Your task to perform on an android device: Open battery settings Image 0: 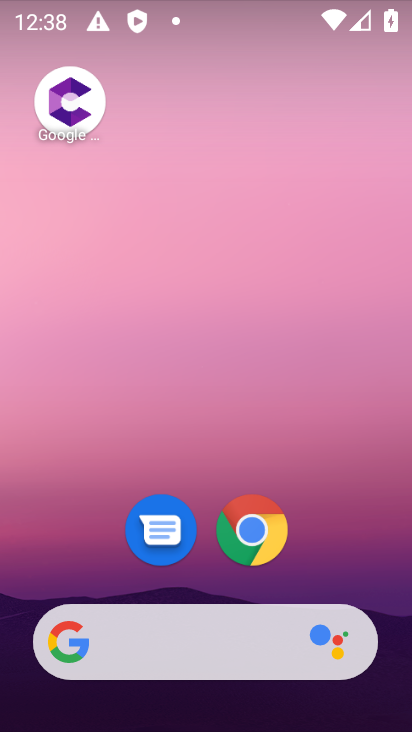
Step 0: drag from (212, 583) to (209, 64)
Your task to perform on an android device: Open battery settings Image 1: 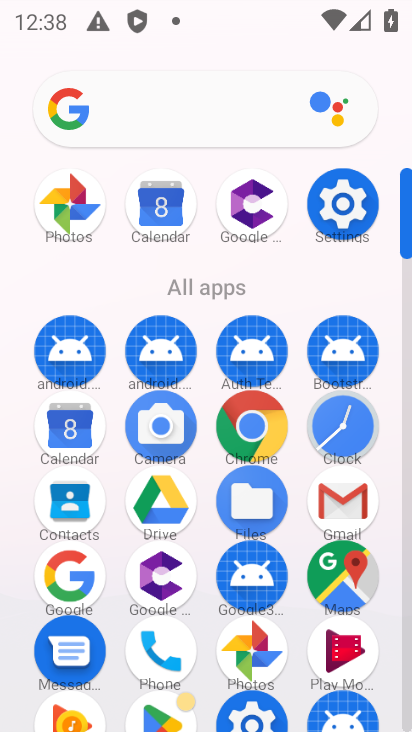
Step 1: click (348, 204)
Your task to perform on an android device: Open battery settings Image 2: 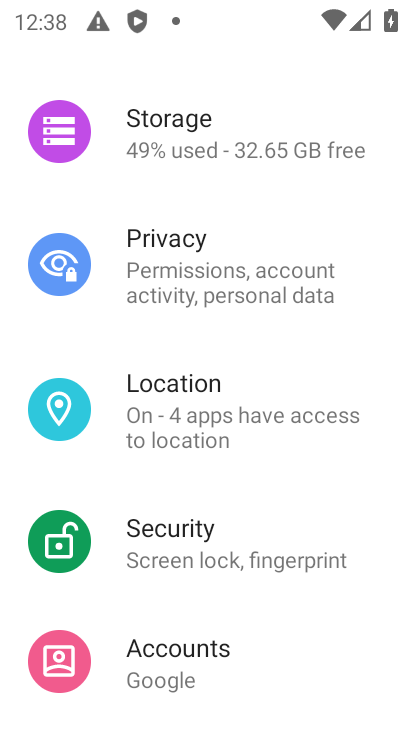
Step 2: drag from (151, 650) to (162, 294)
Your task to perform on an android device: Open battery settings Image 3: 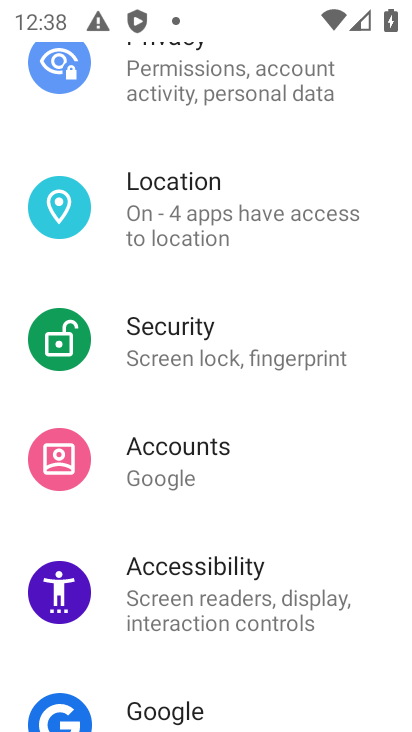
Step 3: drag from (209, 673) to (209, 465)
Your task to perform on an android device: Open battery settings Image 4: 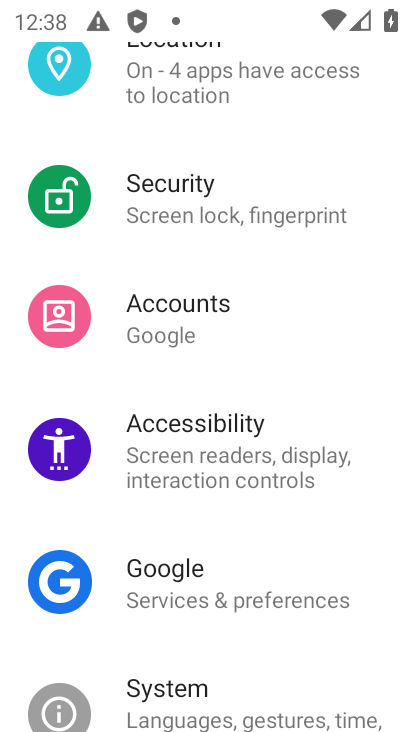
Step 4: drag from (190, 665) to (190, 438)
Your task to perform on an android device: Open battery settings Image 5: 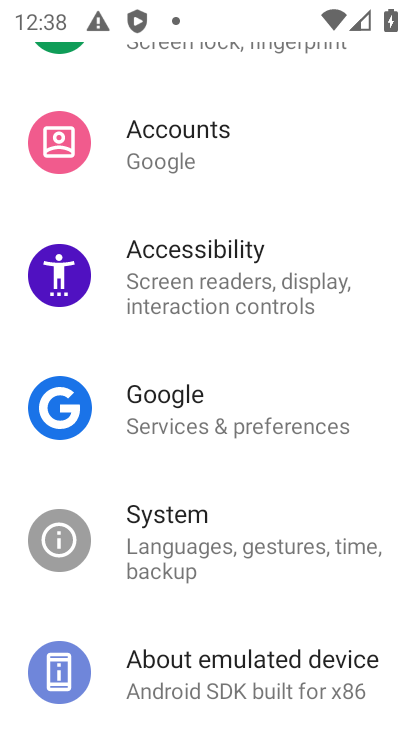
Step 5: drag from (184, 677) to (178, 378)
Your task to perform on an android device: Open battery settings Image 6: 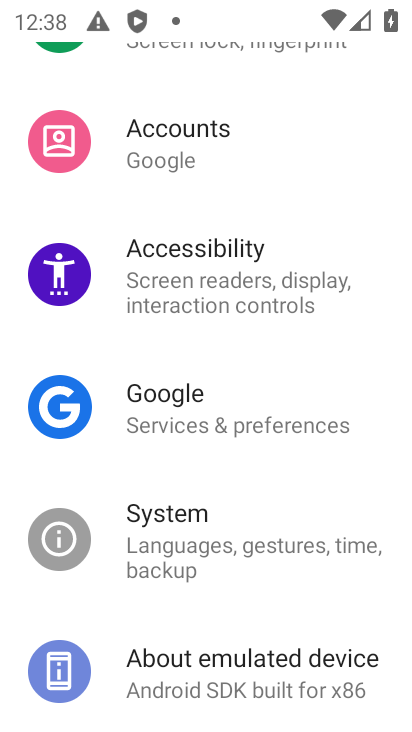
Step 6: drag from (203, 240) to (215, 524)
Your task to perform on an android device: Open battery settings Image 7: 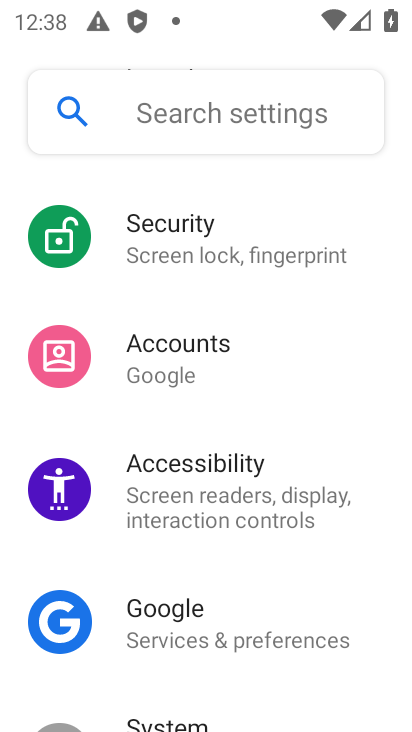
Step 7: drag from (204, 264) to (195, 574)
Your task to perform on an android device: Open battery settings Image 8: 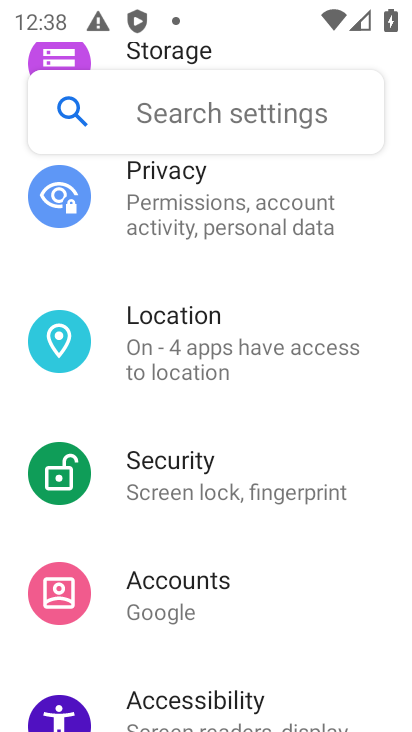
Step 8: drag from (186, 263) to (187, 559)
Your task to perform on an android device: Open battery settings Image 9: 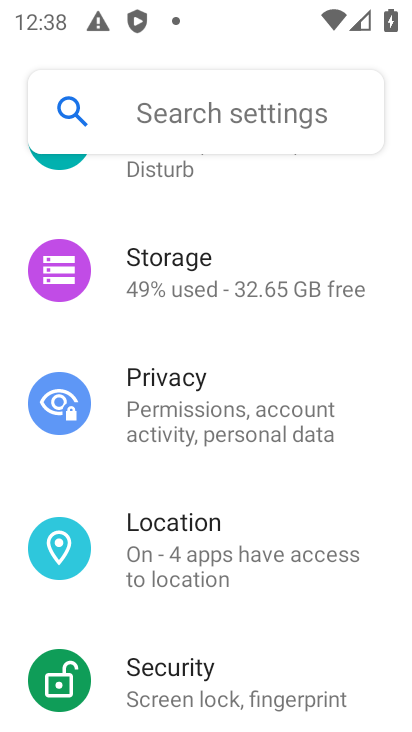
Step 9: drag from (179, 251) to (172, 509)
Your task to perform on an android device: Open battery settings Image 10: 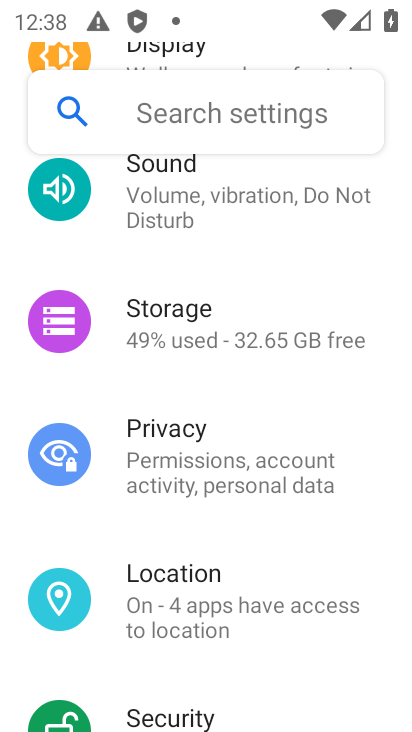
Step 10: drag from (185, 185) to (166, 589)
Your task to perform on an android device: Open battery settings Image 11: 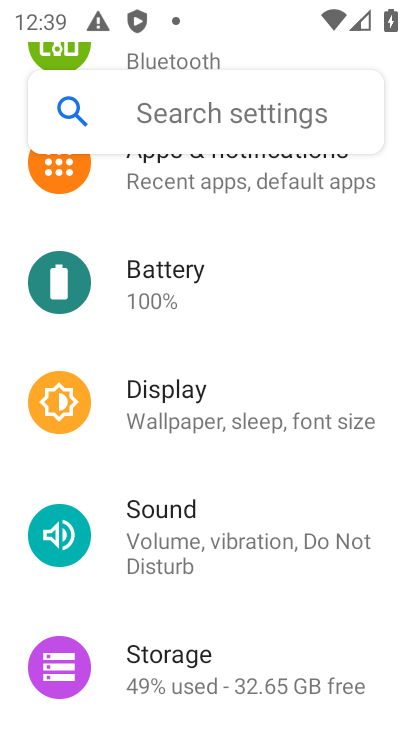
Step 11: drag from (169, 179) to (183, 579)
Your task to perform on an android device: Open battery settings Image 12: 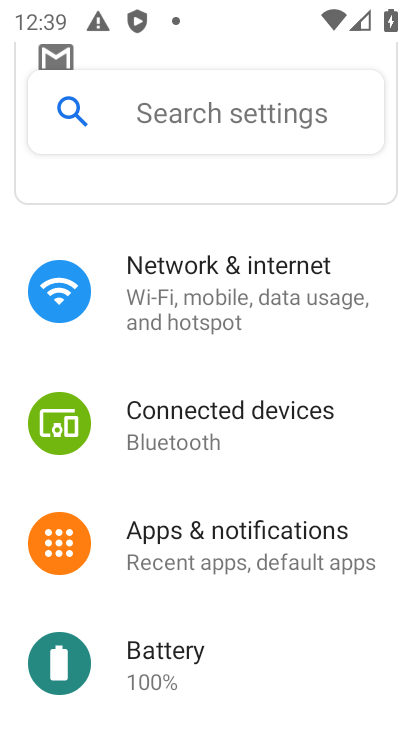
Step 12: drag from (171, 543) to (171, 354)
Your task to perform on an android device: Open battery settings Image 13: 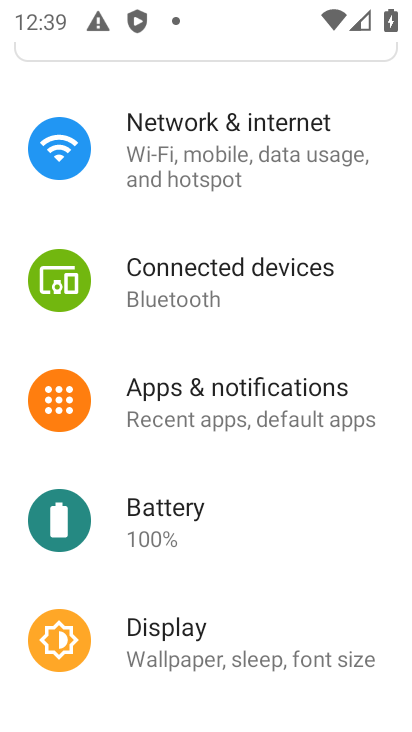
Step 13: click (164, 642)
Your task to perform on an android device: Open battery settings Image 14: 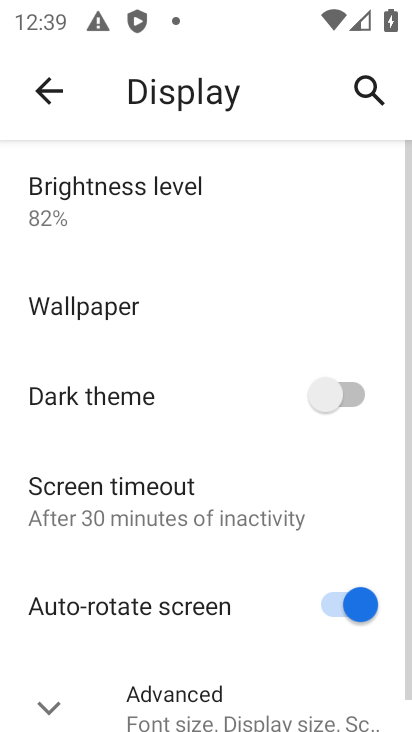
Step 14: drag from (168, 597) to (165, 346)
Your task to perform on an android device: Open battery settings Image 15: 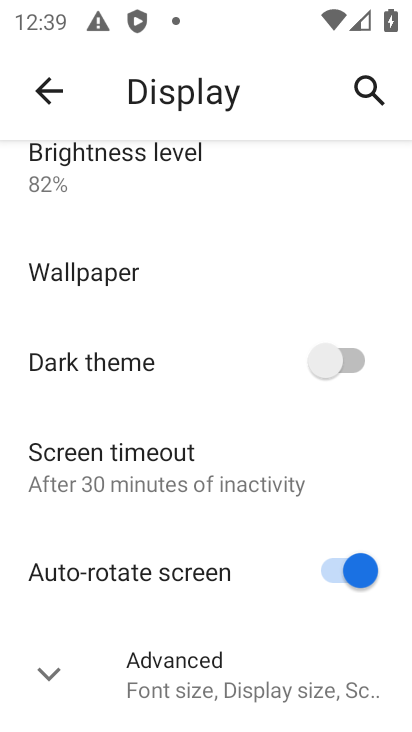
Step 15: click (162, 683)
Your task to perform on an android device: Open battery settings Image 16: 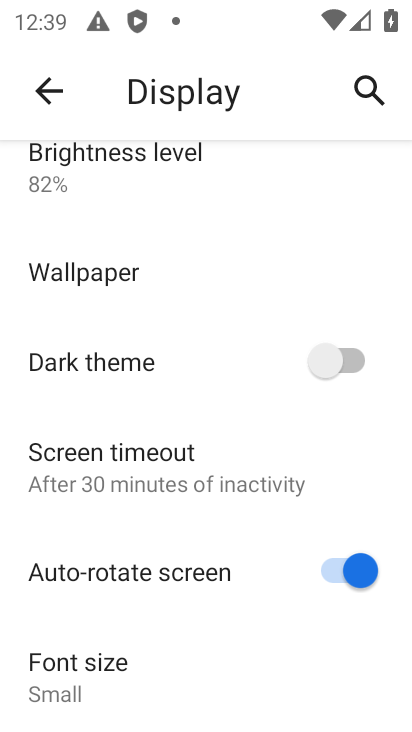
Step 16: drag from (139, 690) to (149, 334)
Your task to perform on an android device: Open battery settings Image 17: 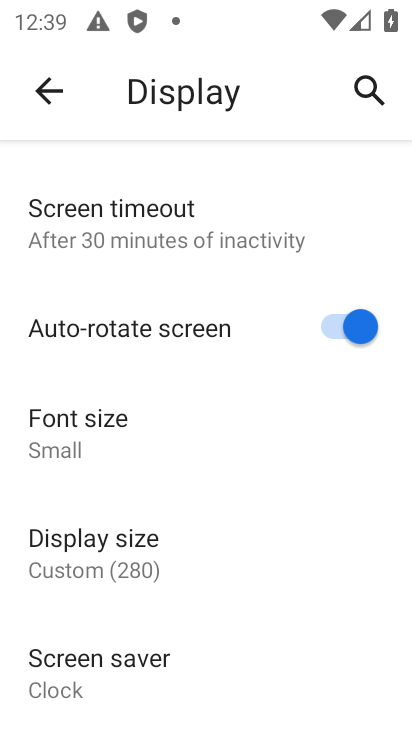
Step 17: click (51, 432)
Your task to perform on an android device: Open battery settings Image 18: 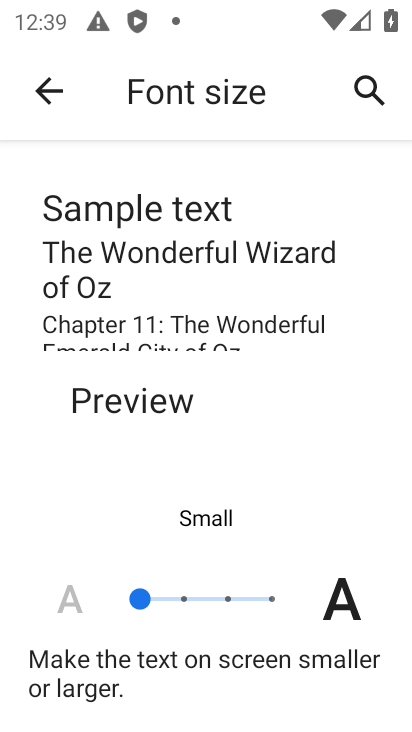
Step 18: click (49, 84)
Your task to perform on an android device: Open battery settings Image 19: 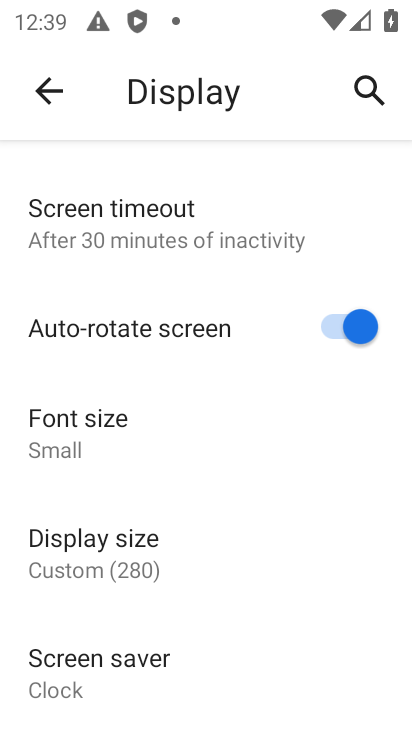
Step 19: click (44, 83)
Your task to perform on an android device: Open battery settings Image 20: 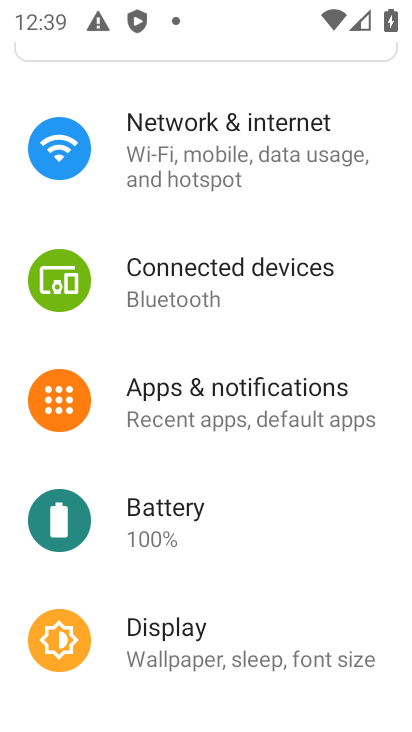
Step 20: click (169, 514)
Your task to perform on an android device: Open battery settings Image 21: 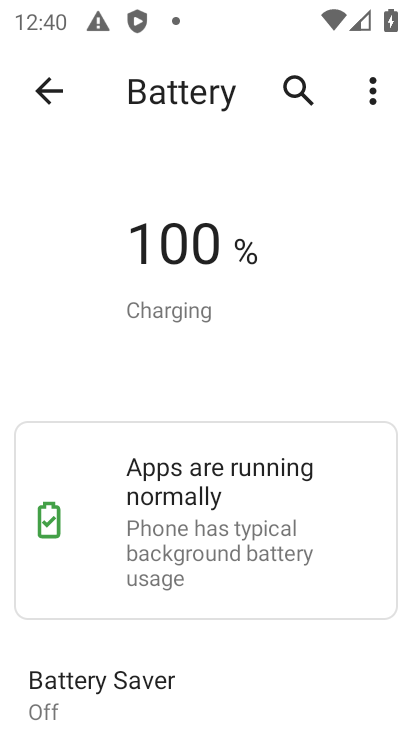
Step 21: task complete